Your task to perform on an android device: Go to Yahoo.com Image 0: 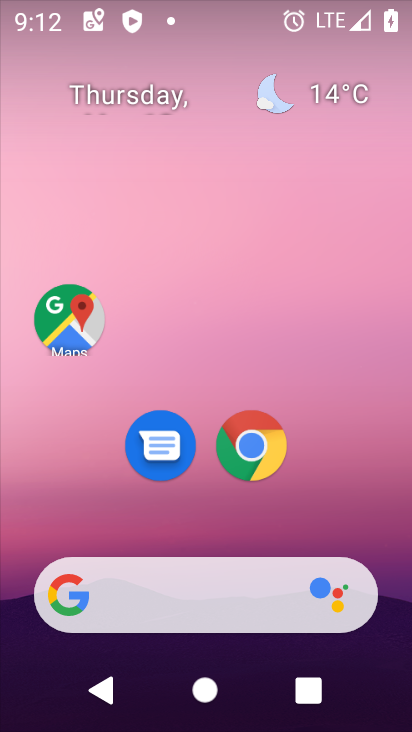
Step 0: click (248, 437)
Your task to perform on an android device: Go to Yahoo.com Image 1: 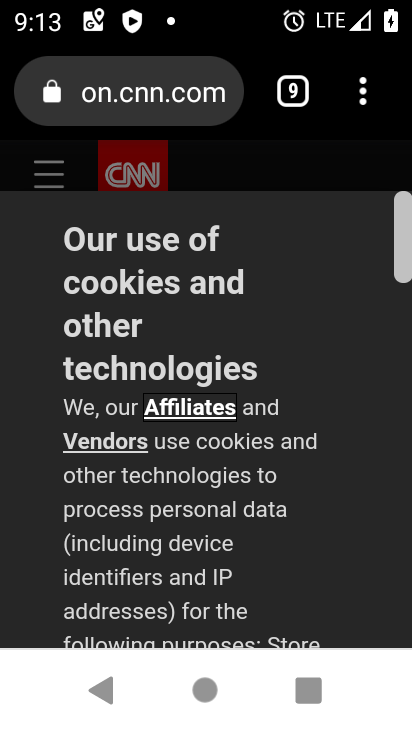
Step 1: click (364, 105)
Your task to perform on an android device: Go to Yahoo.com Image 2: 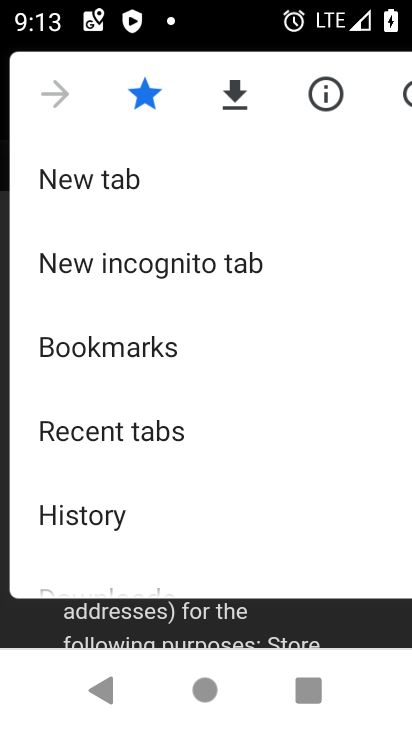
Step 2: click (103, 178)
Your task to perform on an android device: Go to Yahoo.com Image 3: 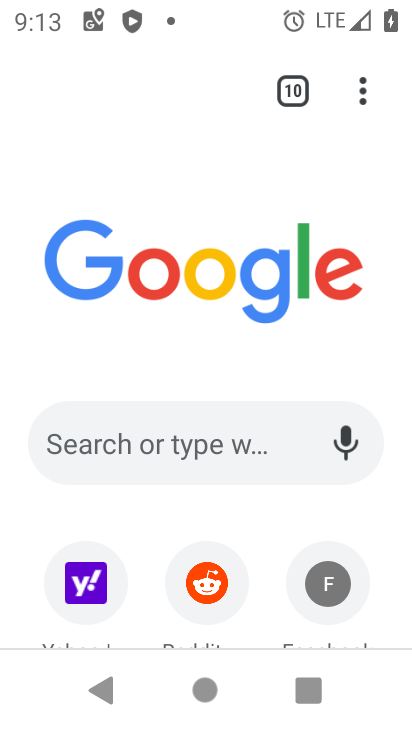
Step 3: click (207, 445)
Your task to perform on an android device: Go to Yahoo.com Image 4: 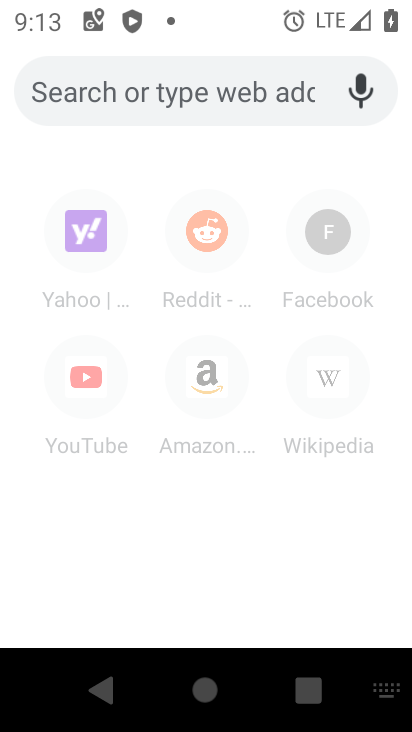
Step 4: type "Yahoo.com"
Your task to perform on an android device: Go to Yahoo.com Image 5: 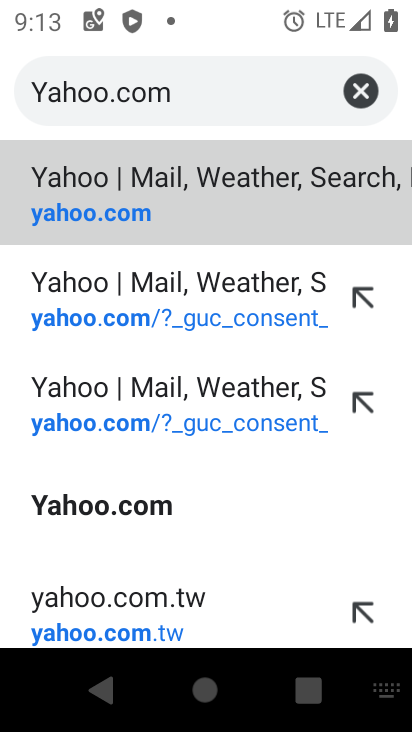
Step 5: click (92, 198)
Your task to perform on an android device: Go to Yahoo.com Image 6: 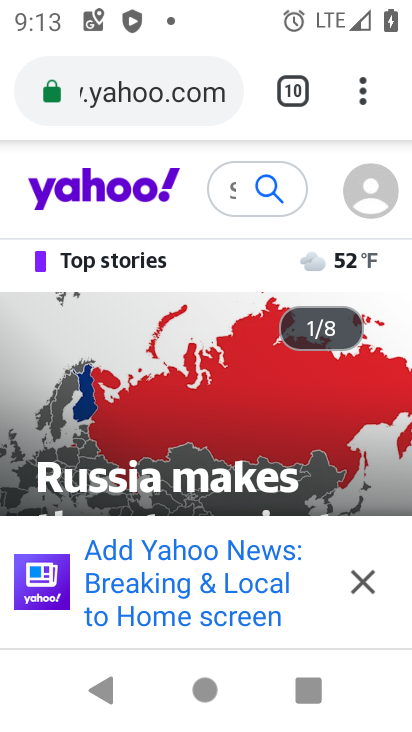
Step 6: task complete